Your task to perform on an android device: Go to Amazon Image 0: 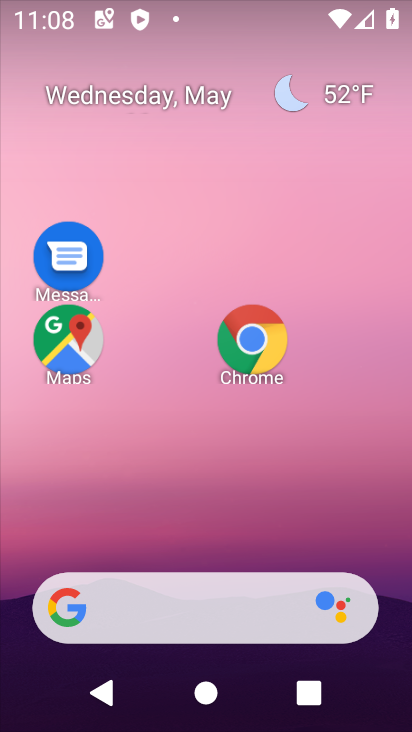
Step 0: click (250, 342)
Your task to perform on an android device: Go to Amazon Image 1: 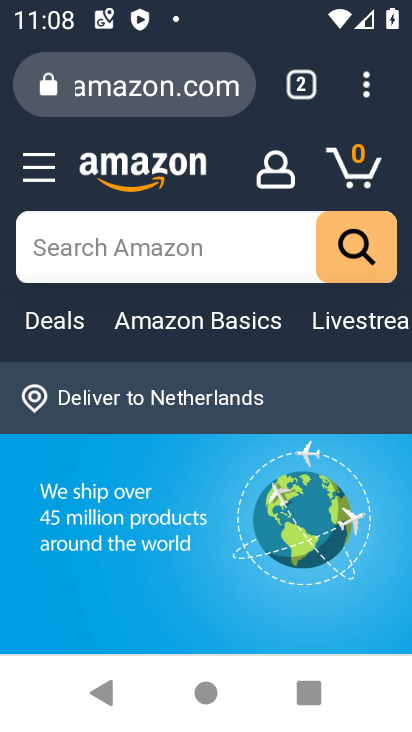
Step 1: task complete